Your task to perform on an android device: set an alarm Image 0: 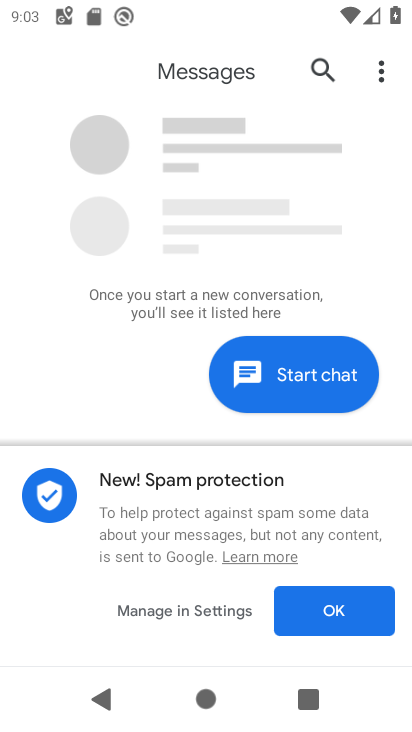
Step 0: press home button
Your task to perform on an android device: set an alarm Image 1: 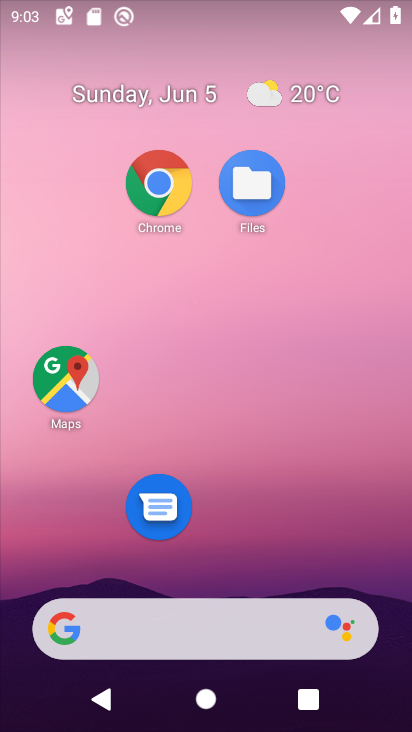
Step 1: drag from (209, 585) to (178, 68)
Your task to perform on an android device: set an alarm Image 2: 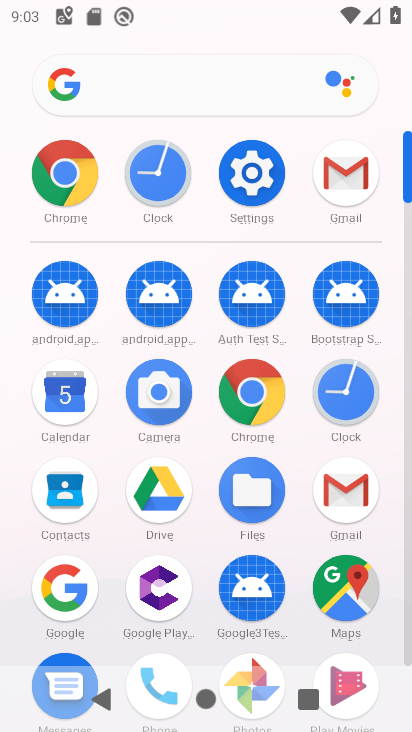
Step 2: click (346, 387)
Your task to perform on an android device: set an alarm Image 3: 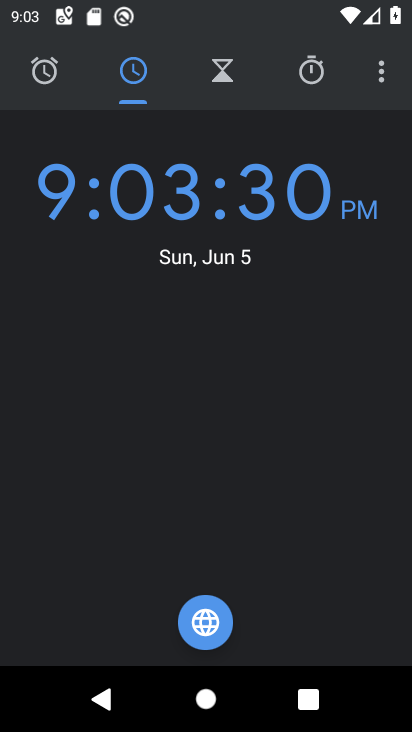
Step 3: click (52, 90)
Your task to perform on an android device: set an alarm Image 4: 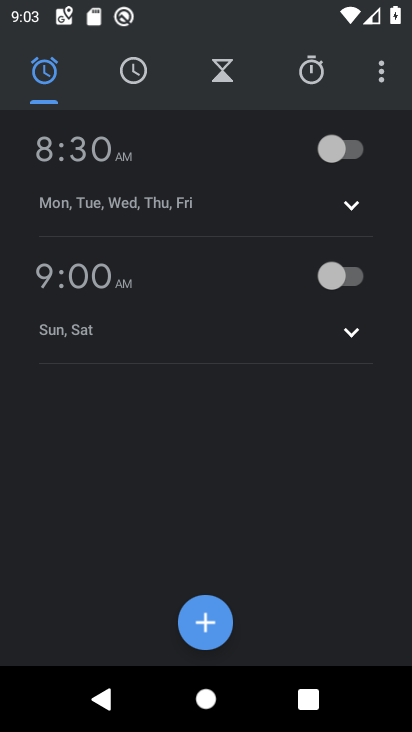
Step 4: click (198, 647)
Your task to perform on an android device: set an alarm Image 5: 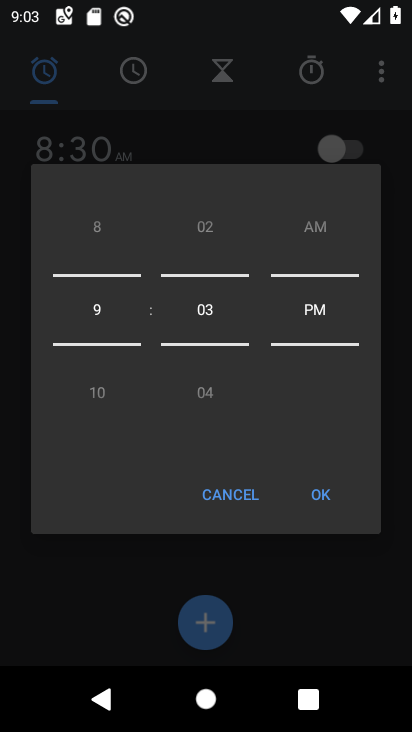
Step 5: click (328, 495)
Your task to perform on an android device: set an alarm Image 6: 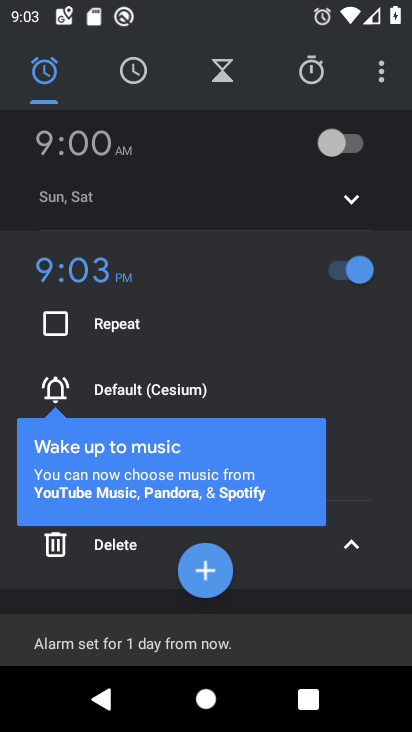
Step 6: task complete